Your task to perform on an android device: uninstall "Mercado Libre" Image 0: 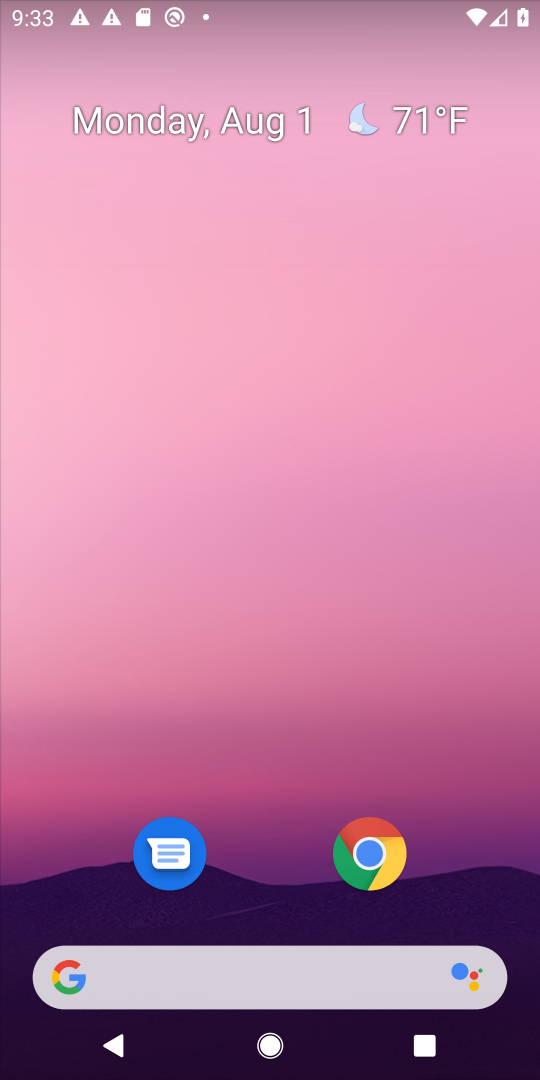
Step 0: drag from (332, 841) to (426, 290)
Your task to perform on an android device: uninstall "Mercado Libre" Image 1: 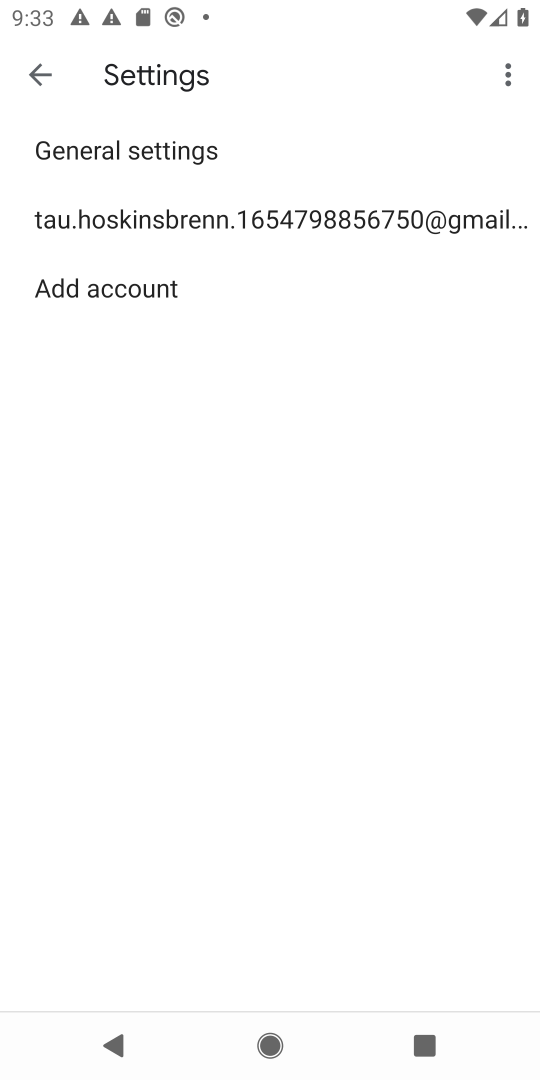
Step 1: press home button
Your task to perform on an android device: uninstall "Mercado Libre" Image 2: 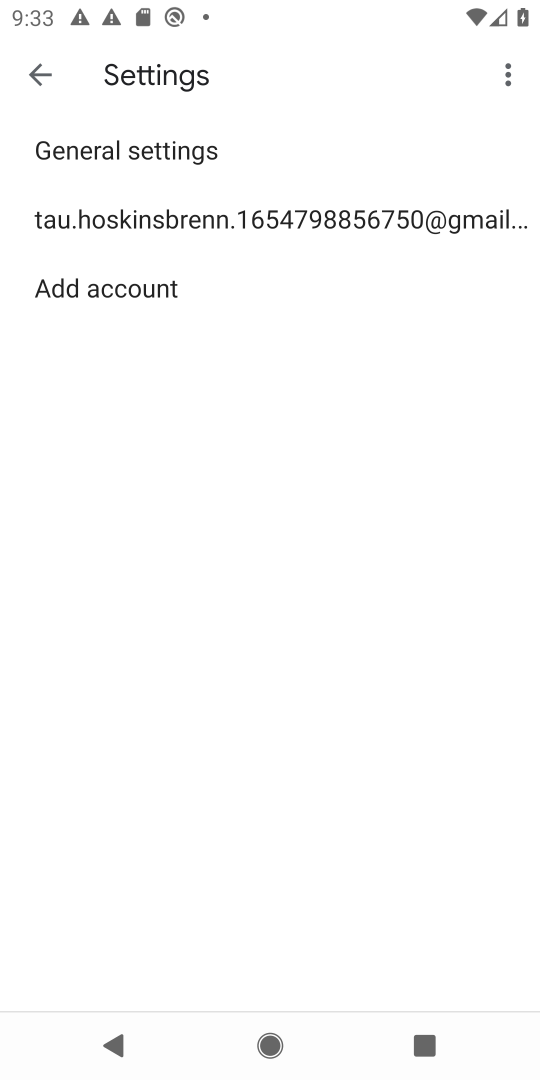
Step 2: press home button
Your task to perform on an android device: uninstall "Mercado Libre" Image 3: 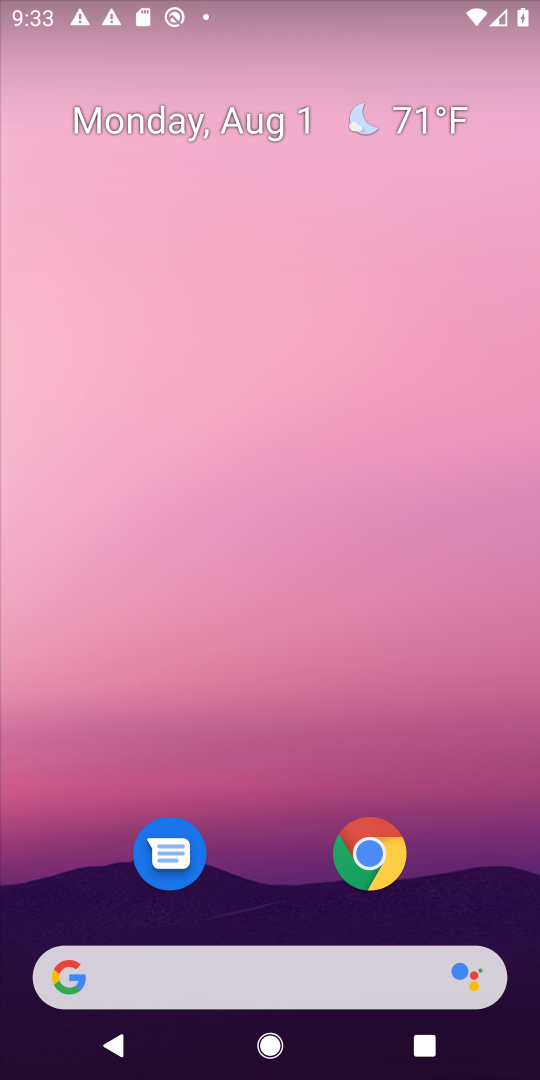
Step 3: press home button
Your task to perform on an android device: uninstall "Mercado Libre" Image 4: 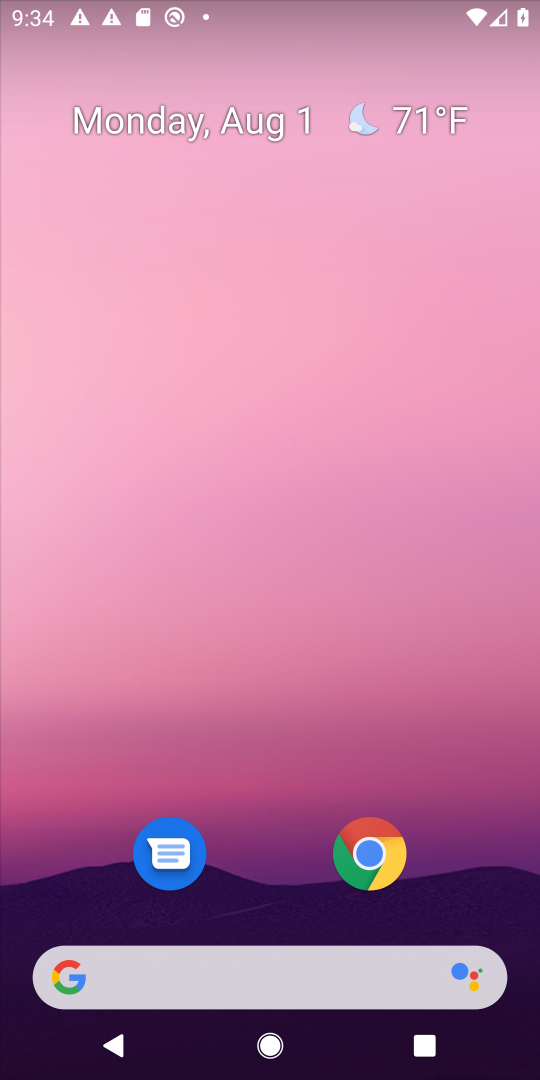
Step 4: drag from (260, 929) to (293, 146)
Your task to perform on an android device: uninstall "Mercado Libre" Image 5: 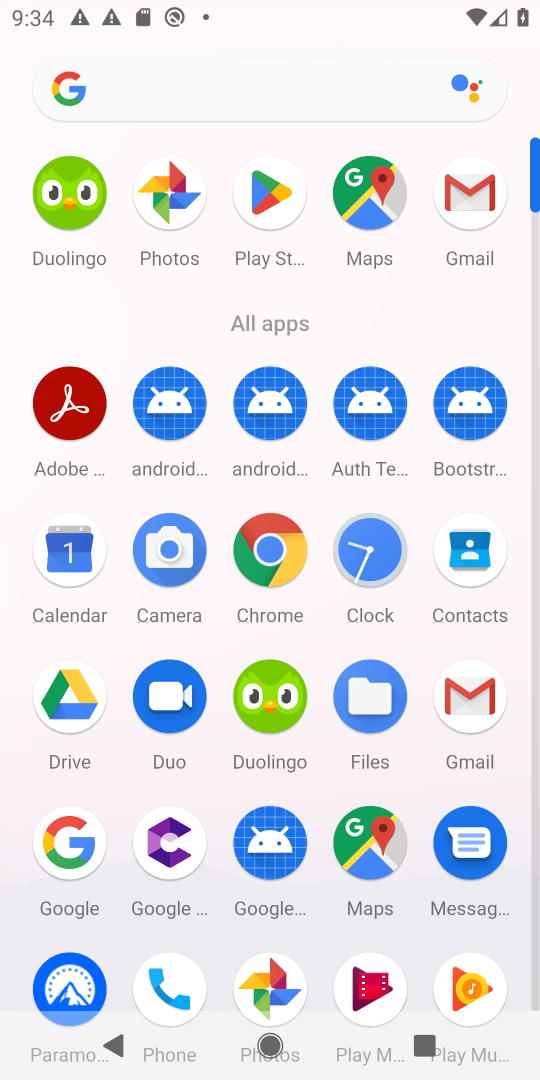
Step 5: drag from (306, 916) to (311, 393)
Your task to perform on an android device: uninstall "Mercado Libre" Image 6: 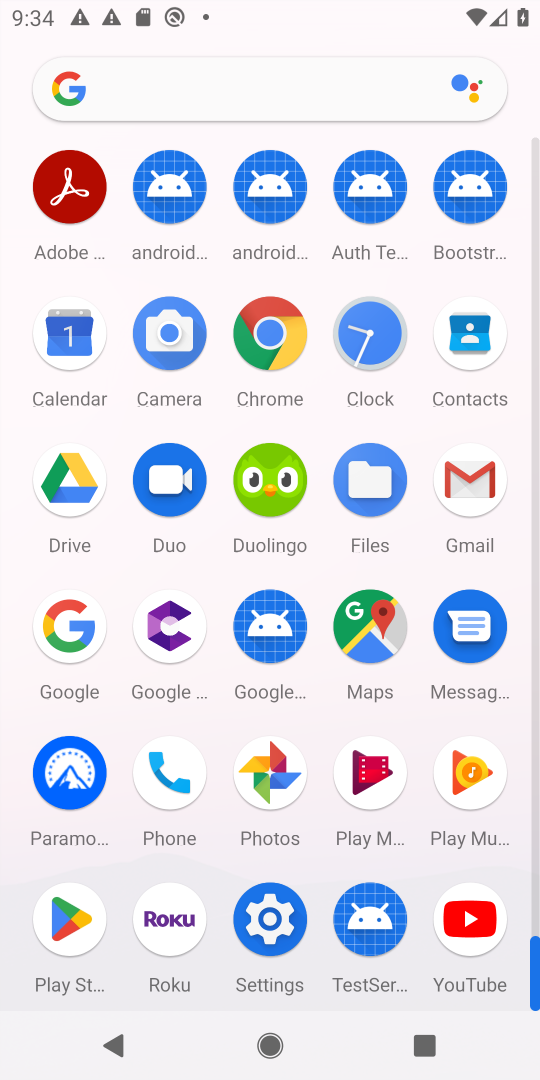
Step 6: click (67, 916)
Your task to perform on an android device: uninstall "Mercado Libre" Image 7: 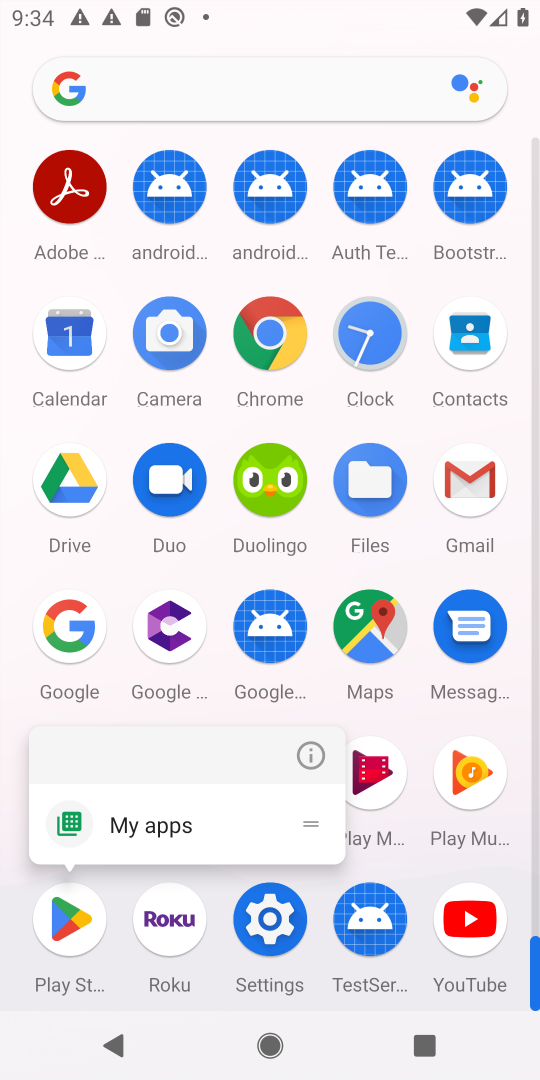
Step 7: click (308, 758)
Your task to perform on an android device: uninstall "Mercado Libre" Image 8: 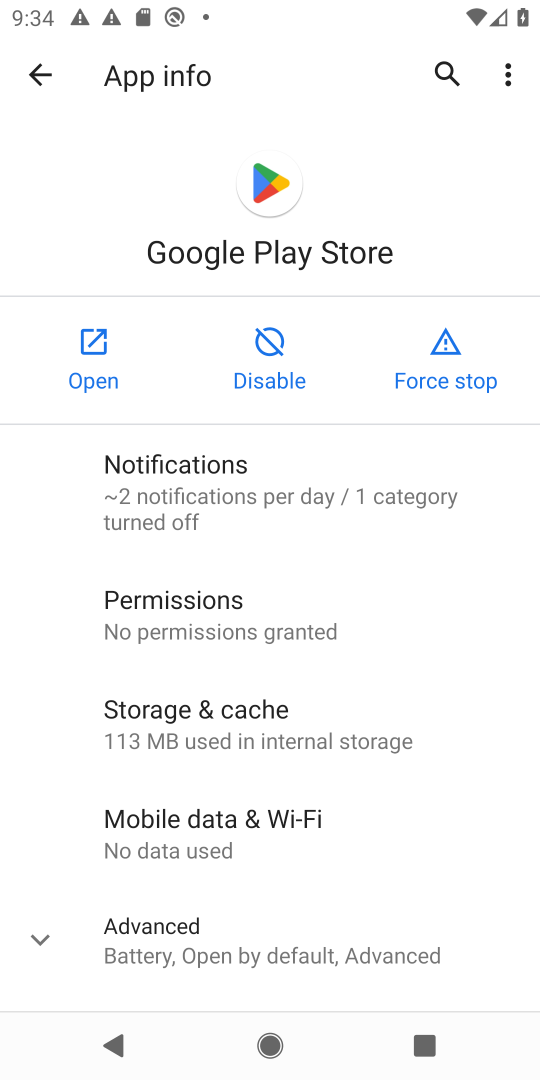
Step 8: click (92, 371)
Your task to perform on an android device: uninstall "Mercado Libre" Image 9: 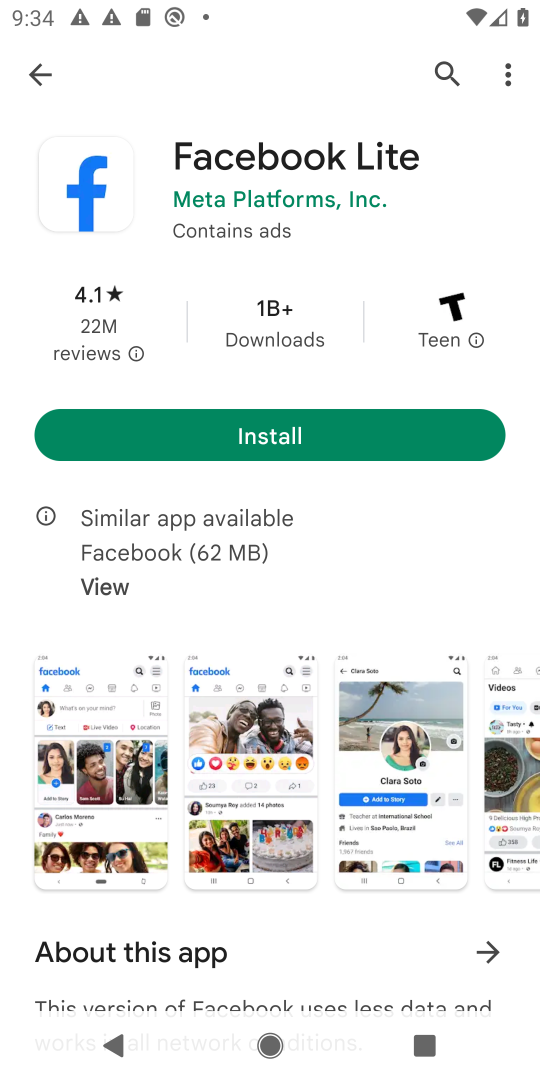
Step 9: click (451, 81)
Your task to perform on an android device: uninstall "Mercado Libre" Image 10: 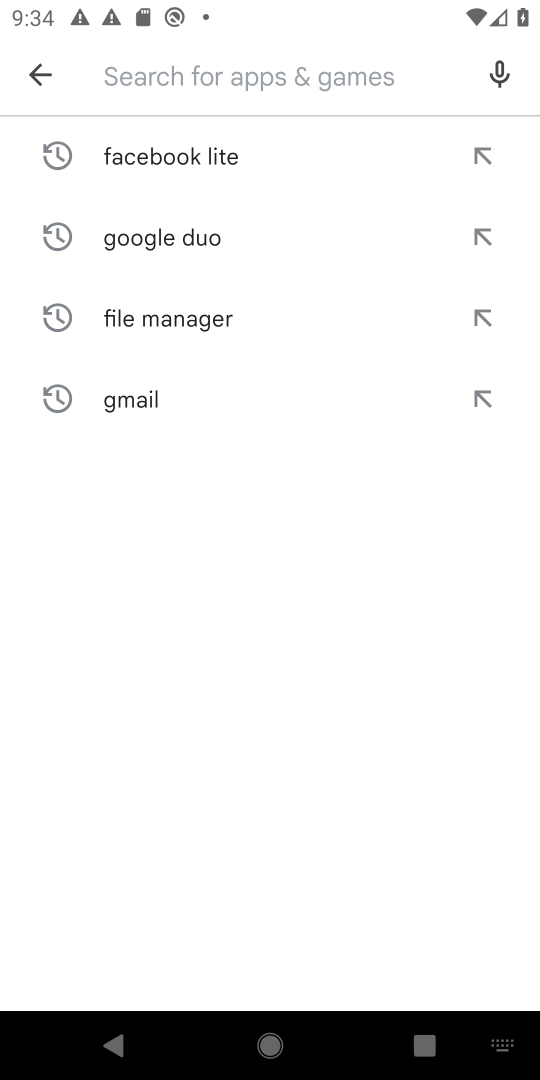
Step 10: type "Mercado Libre"
Your task to perform on an android device: uninstall "Mercado Libre" Image 11: 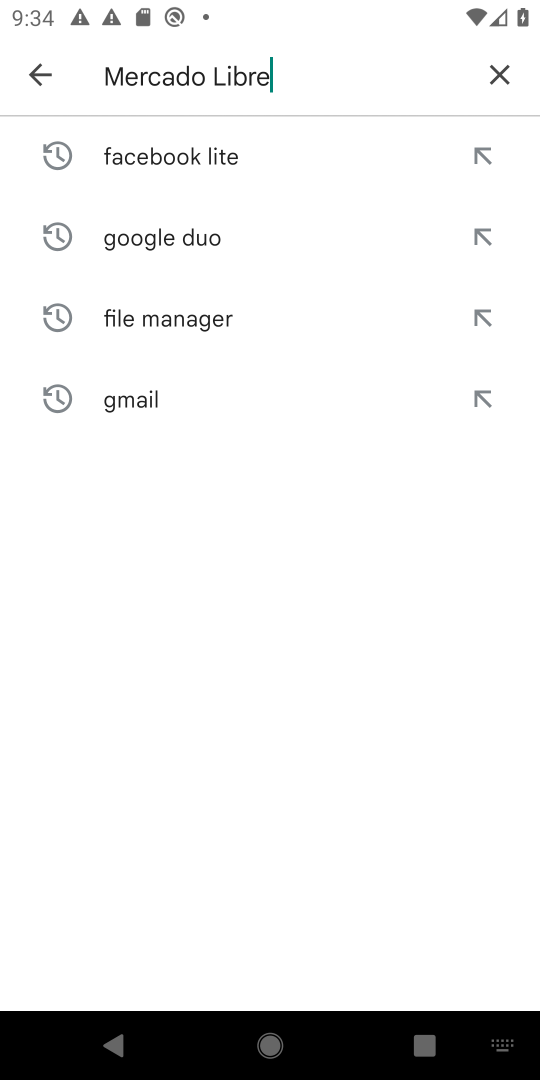
Step 11: type ""
Your task to perform on an android device: uninstall "Mercado Libre" Image 12: 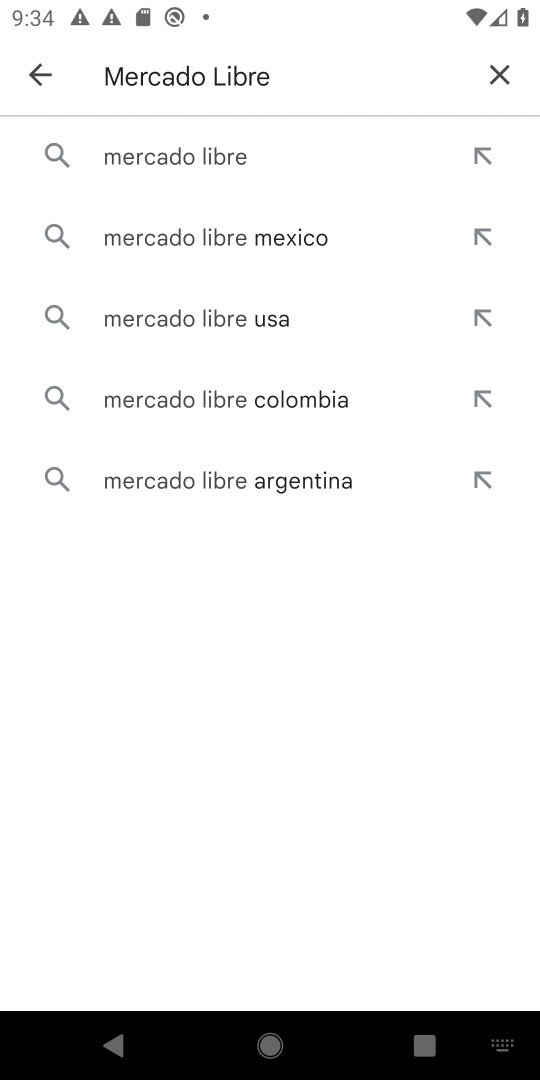
Step 12: click (230, 145)
Your task to perform on an android device: uninstall "Mercado Libre" Image 13: 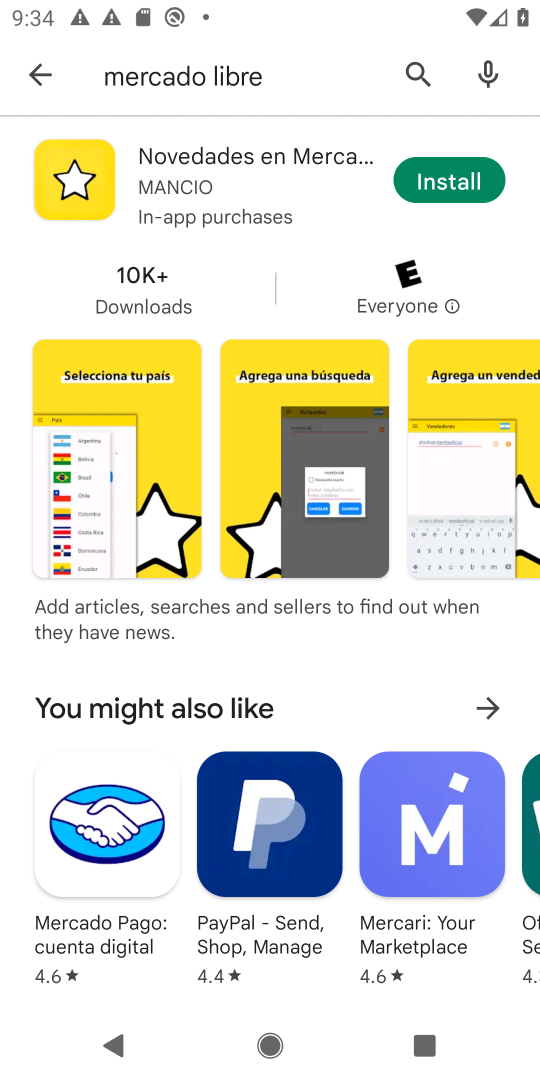
Step 13: task complete